Your task to perform on an android device: find photos in the google photos app Image 0: 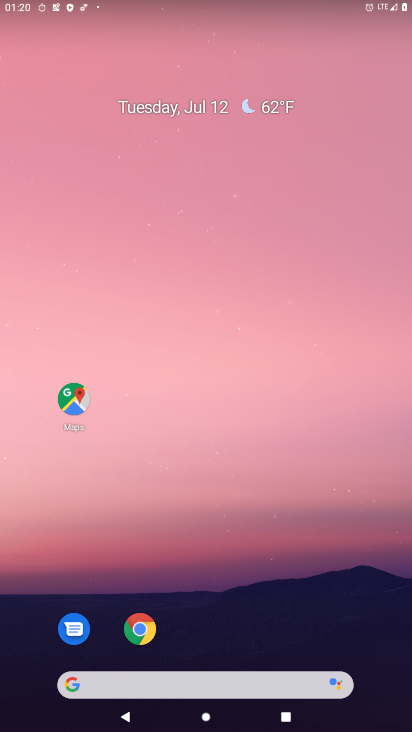
Step 0: drag from (285, 567) to (263, 12)
Your task to perform on an android device: find photos in the google photos app Image 1: 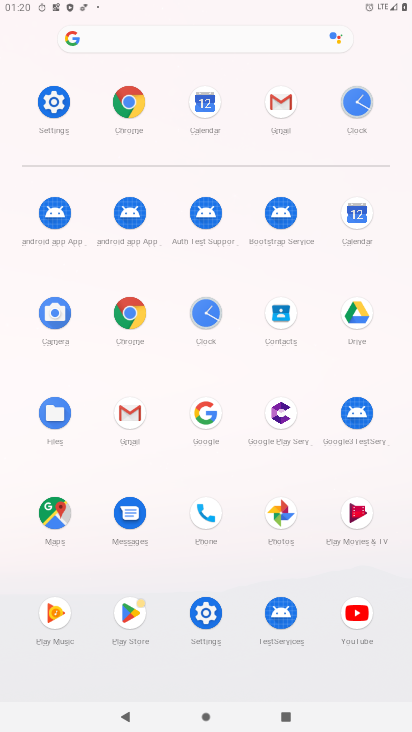
Step 1: click (276, 506)
Your task to perform on an android device: find photos in the google photos app Image 2: 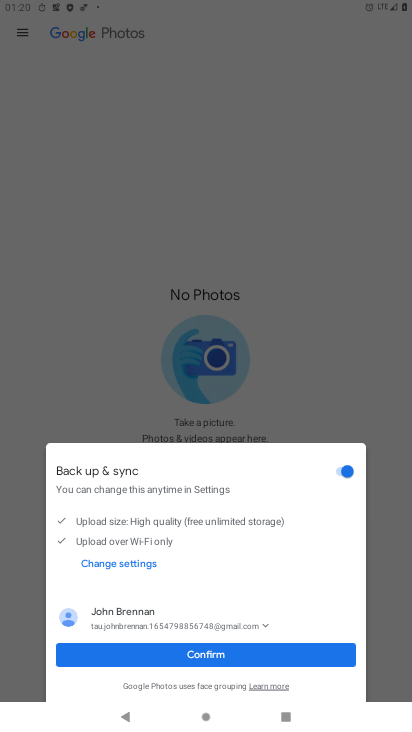
Step 2: click (220, 647)
Your task to perform on an android device: find photos in the google photos app Image 3: 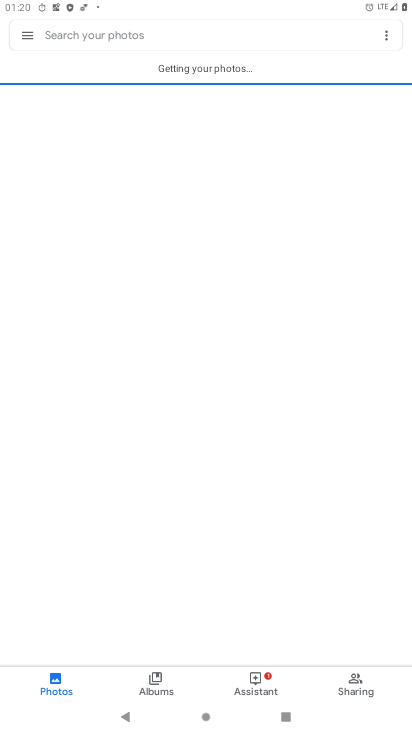
Step 3: click (43, 676)
Your task to perform on an android device: find photos in the google photos app Image 4: 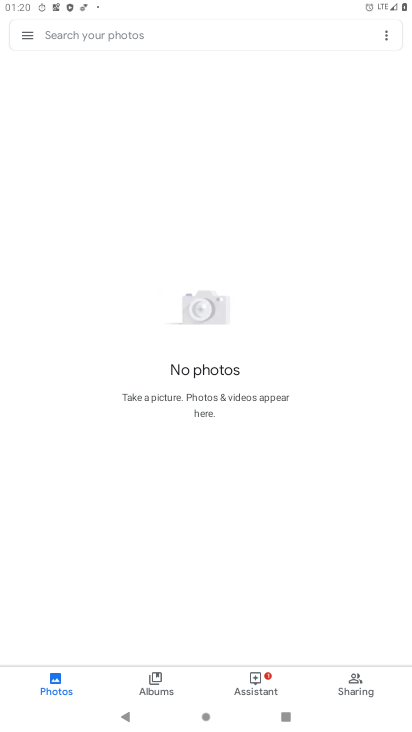
Step 4: task complete